Your task to perform on an android device: Open the calendar app, open the side menu, and click the "Day" option Image 0: 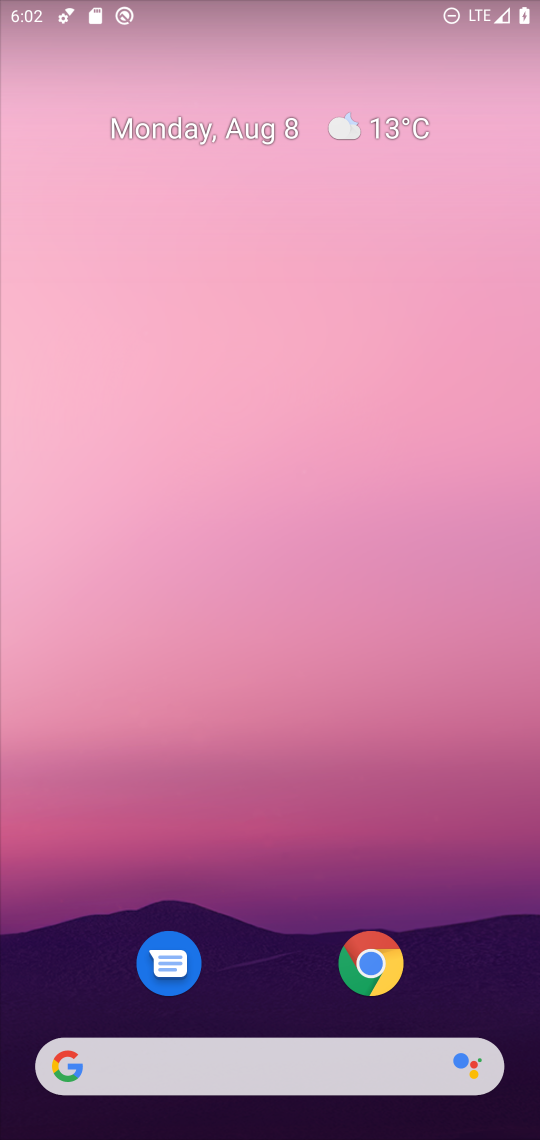
Step 0: press home button
Your task to perform on an android device: Open the calendar app, open the side menu, and click the "Day" option Image 1: 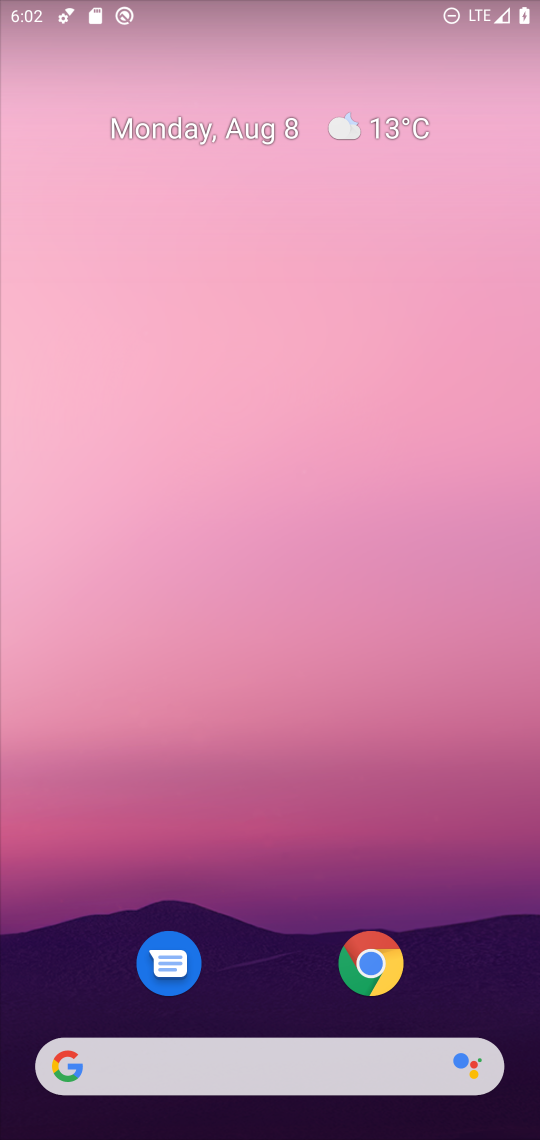
Step 1: drag from (261, 985) to (265, 193)
Your task to perform on an android device: Open the calendar app, open the side menu, and click the "Day" option Image 2: 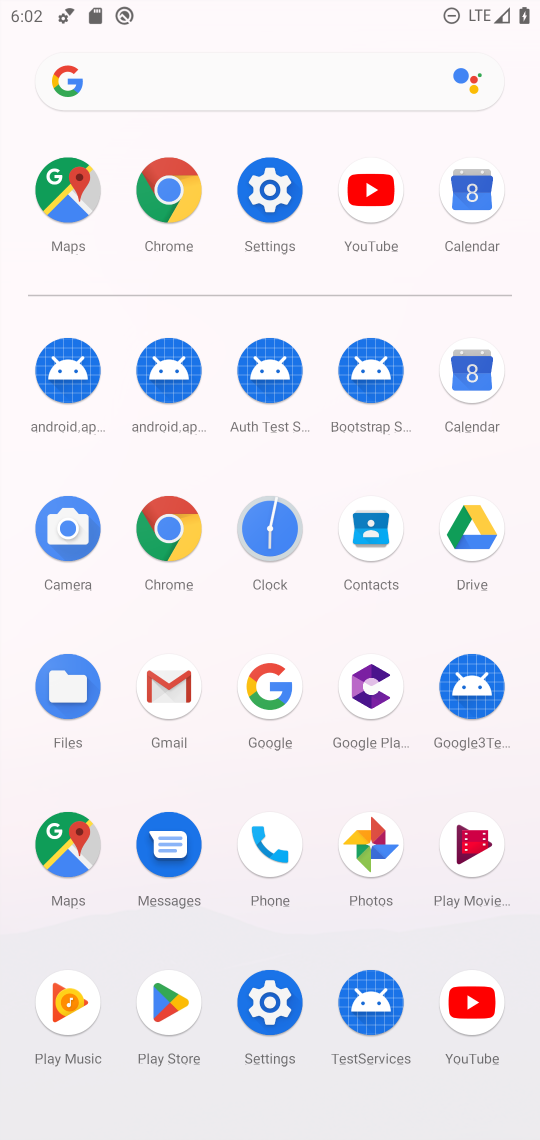
Step 2: click (485, 191)
Your task to perform on an android device: Open the calendar app, open the side menu, and click the "Day" option Image 3: 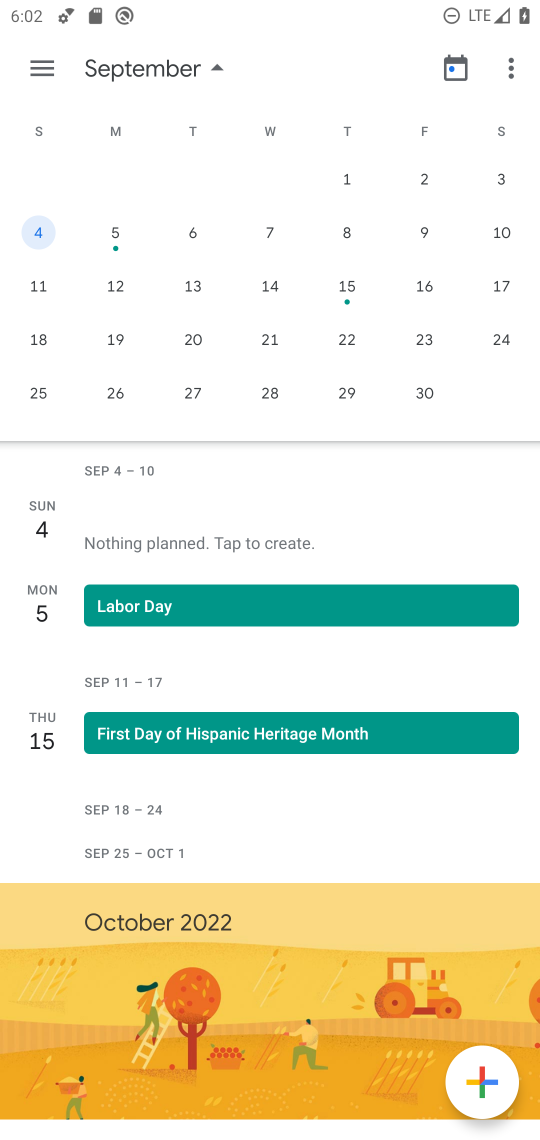
Step 3: click (31, 66)
Your task to perform on an android device: Open the calendar app, open the side menu, and click the "Day" option Image 4: 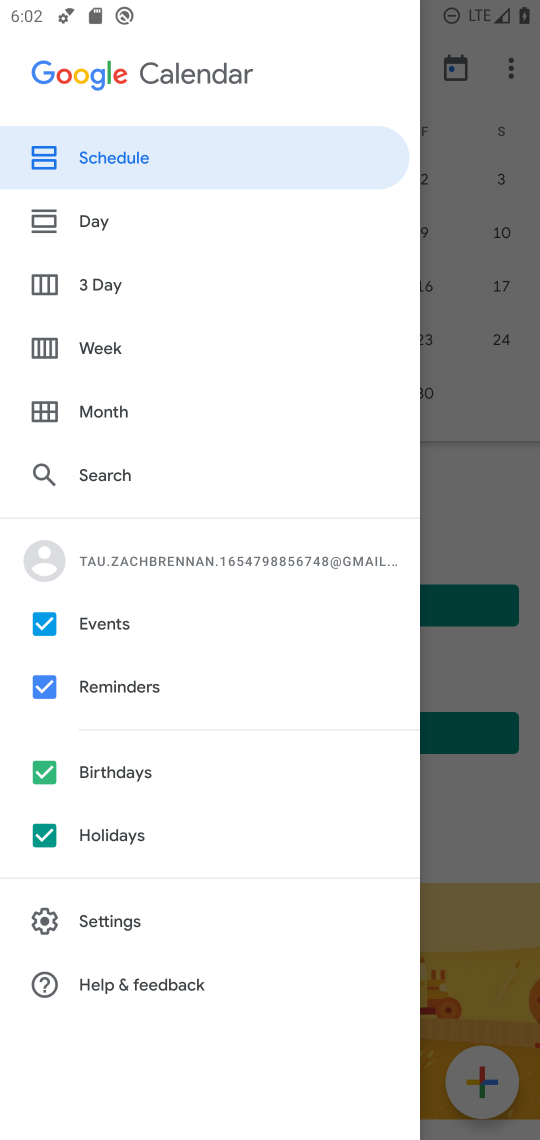
Step 4: click (97, 217)
Your task to perform on an android device: Open the calendar app, open the side menu, and click the "Day" option Image 5: 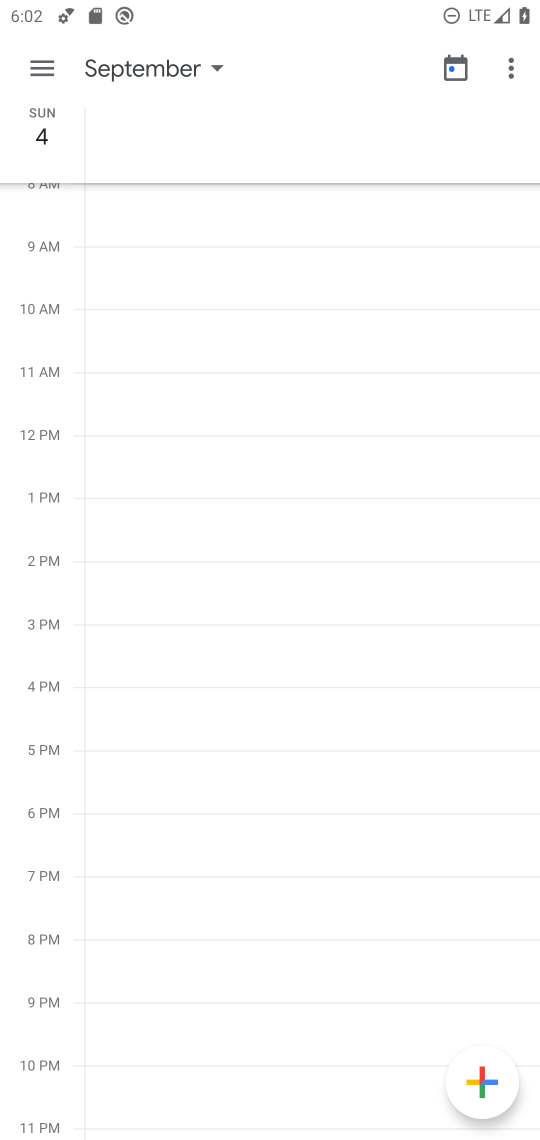
Step 5: task complete